Your task to perform on an android device: delete the emails in spam in the gmail app Image 0: 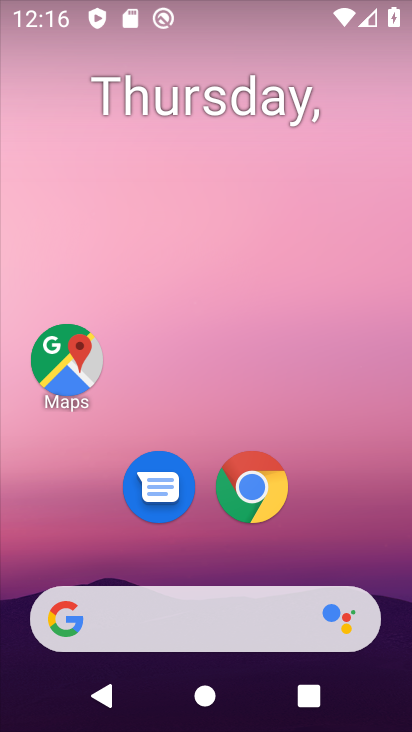
Step 0: drag from (384, 479) to (395, 75)
Your task to perform on an android device: delete the emails in spam in the gmail app Image 1: 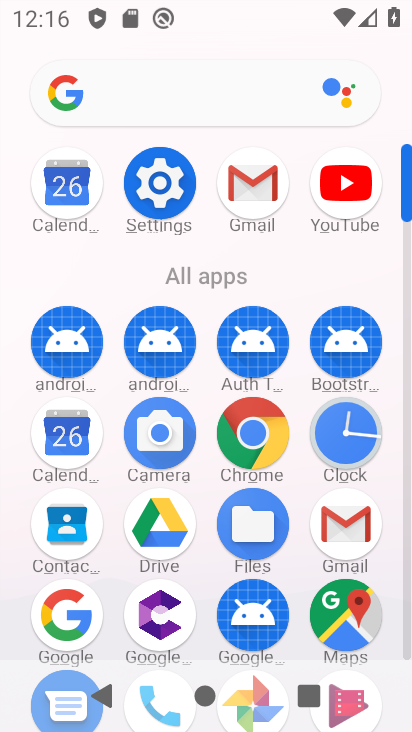
Step 1: click (347, 505)
Your task to perform on an android device: delete the emails in spam in the gmail app Image 2: 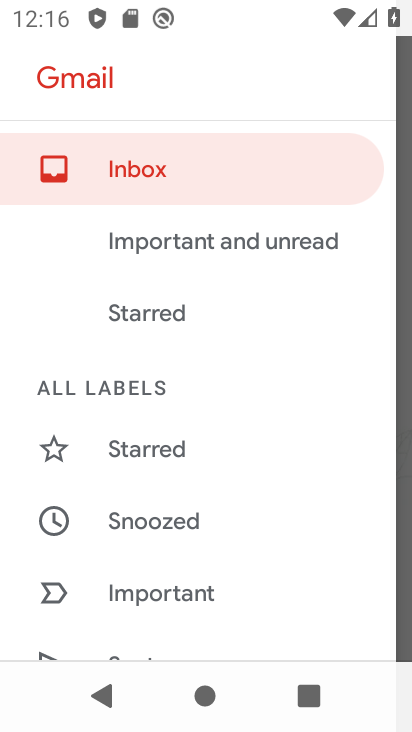
Step 2: task complete